Your task to perform on an android device: toggle sleep mode Image 0: 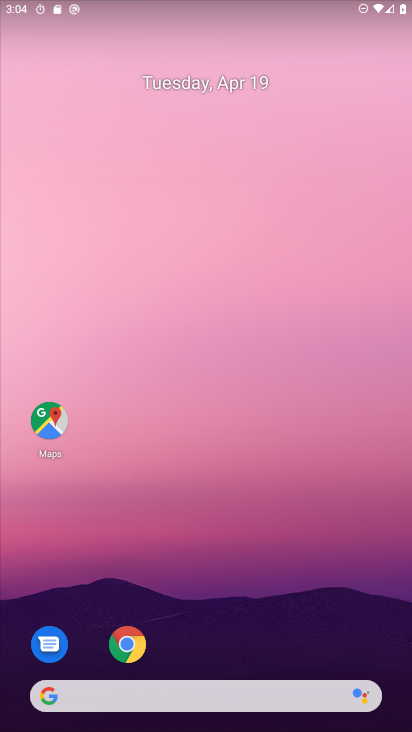
Step 0: drag from (261, 594) to (267, 185)
Your task to perform on an android device: toggle sleep mode Image 1: 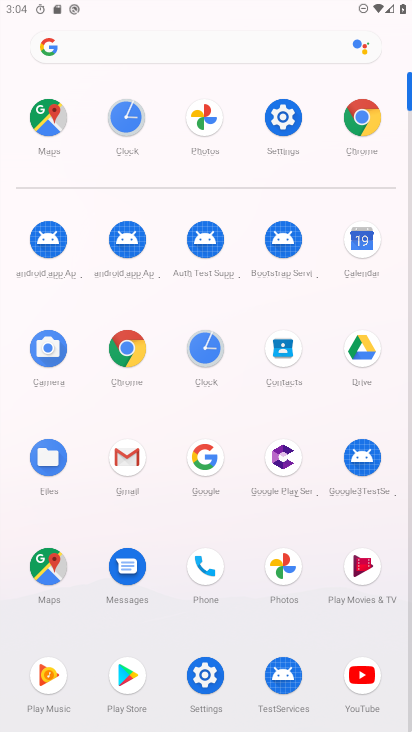
Step 1: click (274, 124)
Your task to perform on an android device: toggle sleep mode Image 2: 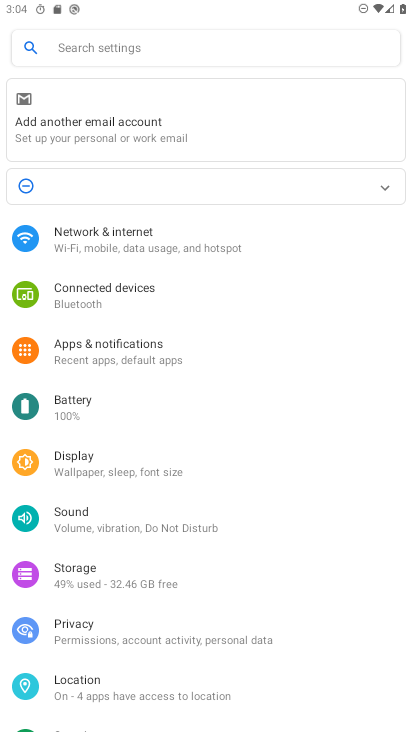
Step 2: click (113, 474)
Your task to perform on an android device: toggle sleep mode Image 3: 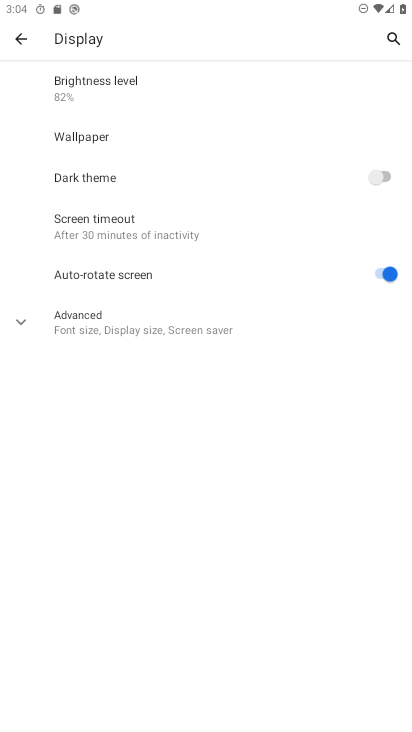
Step 3: click (125, 330)
Your task to perform on an android device: toggle sleep mode Image 4: 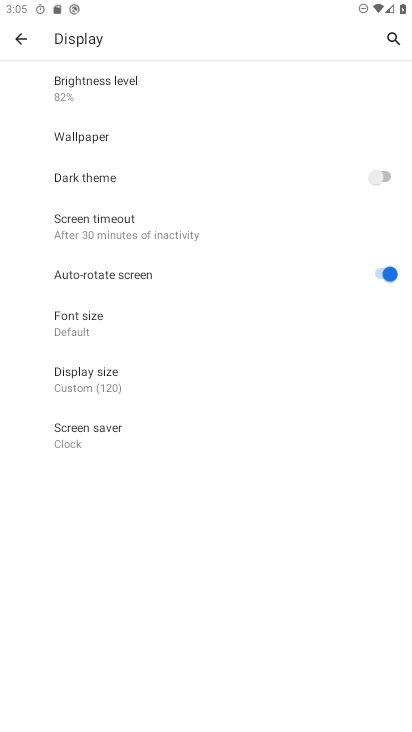
Step 4: task complete